Your task to perform on an android device: choose inbox layout in the gmail app Image 0: 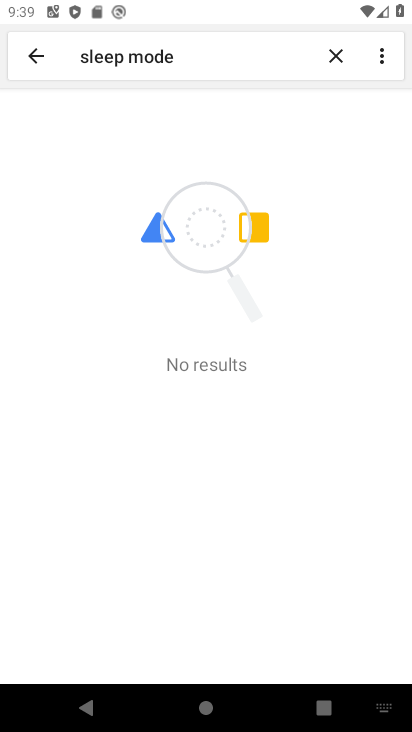
Step 0: press back button
Your task to perform on an android device: choose inbox layout in the gmail app Image 1: 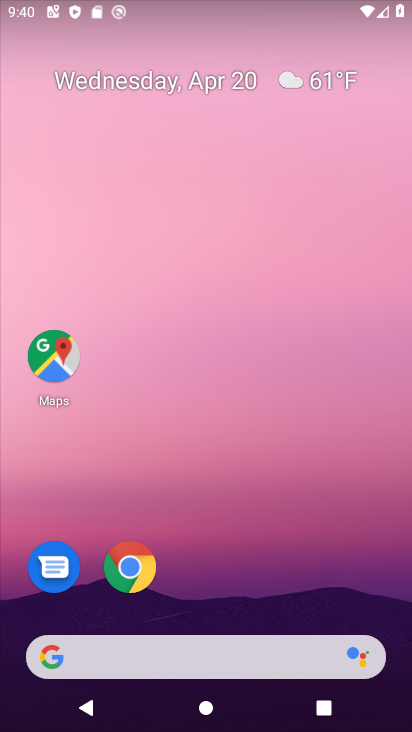
Step 1: drag from (139, 537) to (288, 50)
Your task to perform on an android device: choose inbox layout in the gmail app Image 2: 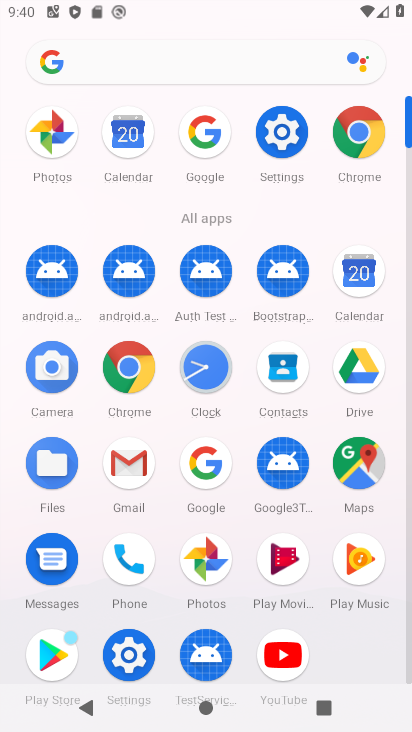
Step 2: click (134, 471)
Your task to perform on an android device: choose inbox layout in the gmail app Image 3: 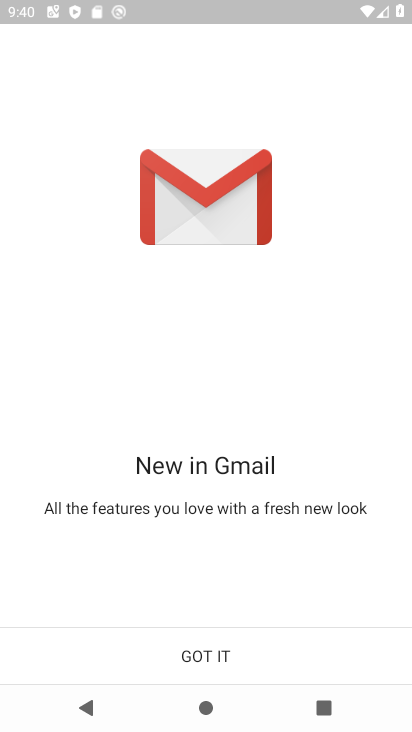
Step 3: click (221, 649)
Your task to perform on an android device: choose inbox layout in the gmail app Image 4: 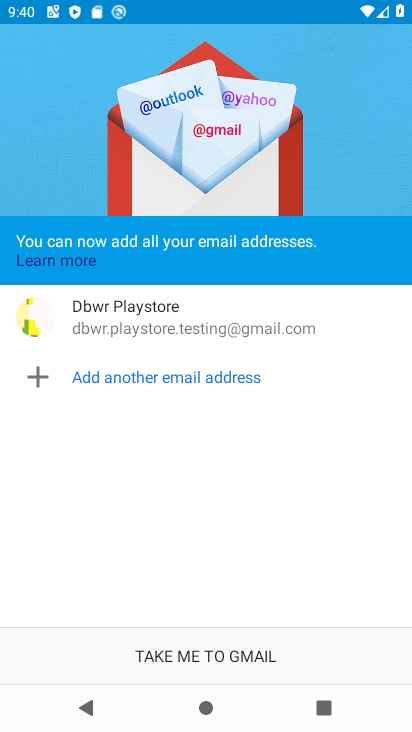
Step 4: click (242, 643)
Your task to perform on an android device: choose inbox layout in the gmail app Image 5: 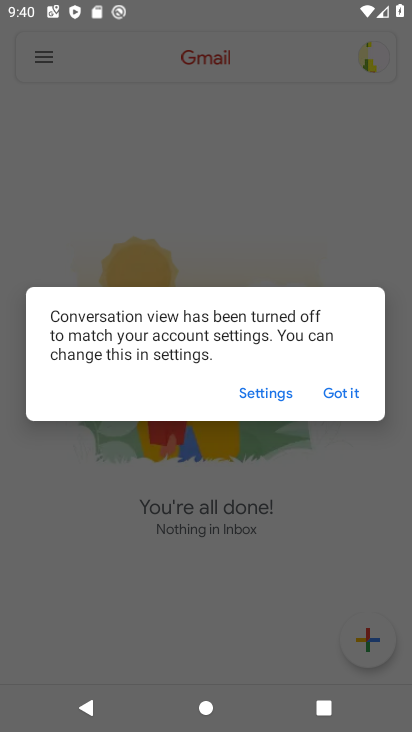
Step 5: click (351, 387)
Your task to perform on an android device: choose inbox layout in the gmail app Image 6: 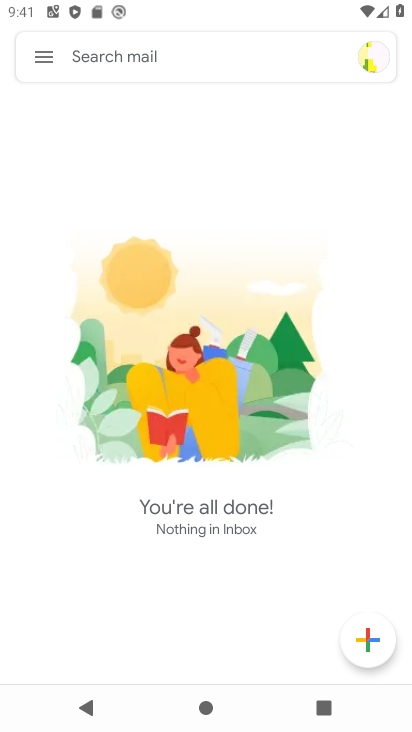
Step 6: click (50, 56)
Your task to perform on an android device: choose inbox layout in the gmail app Image 7: 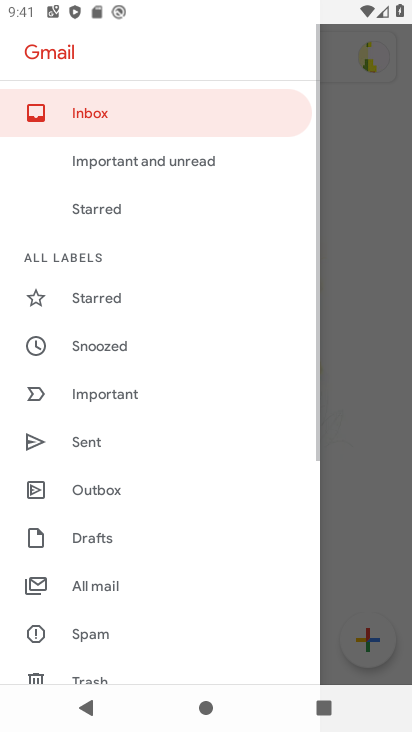
Step 7: drag from (113, 649) to (262, 9)
Your task to perform on an android device: choose inbox layout in the gmail app Image 8: 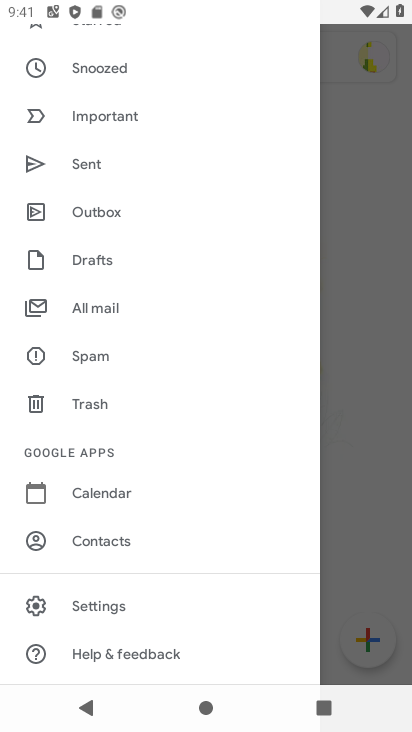
Step 8: click (94, 589)
Your task to perform on an android device: choose inbox layout in the gmail app Image 9: 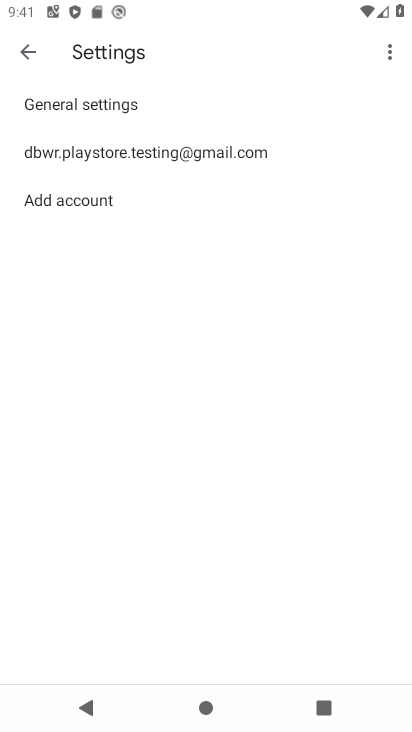
Step 9: click (118, 159)
Your task to perform on an android device: choose inbox layout in the gmail app Image 10: 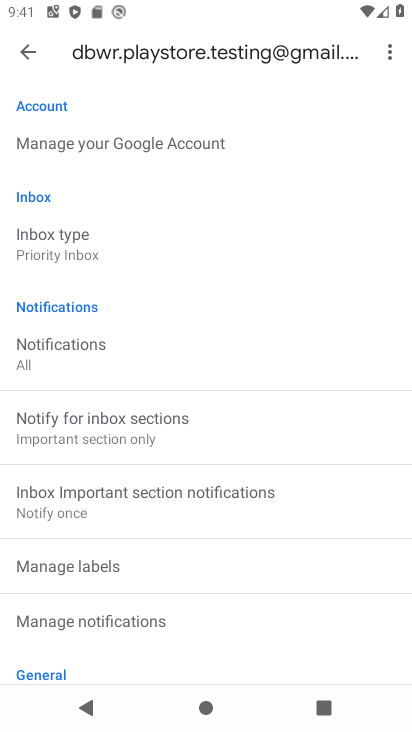
Step 10: click (124, 240)
Your task to perform on an android device: choose inbox layout in the gmail app Image 11: 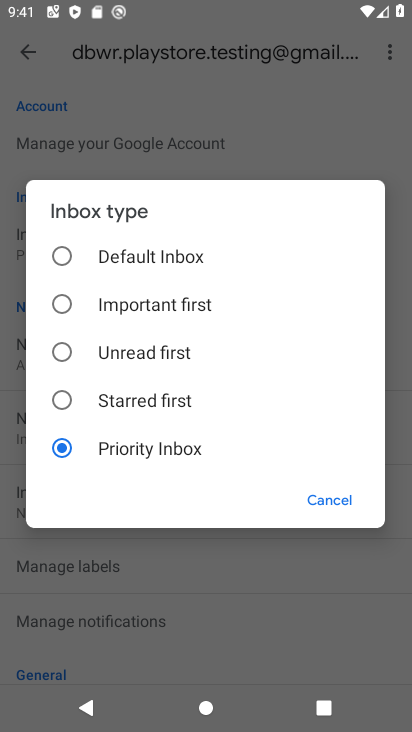
Step 11: click (56, 247)
Your task to perform on an android device: choose inbox layout in the gmail app Image 12: 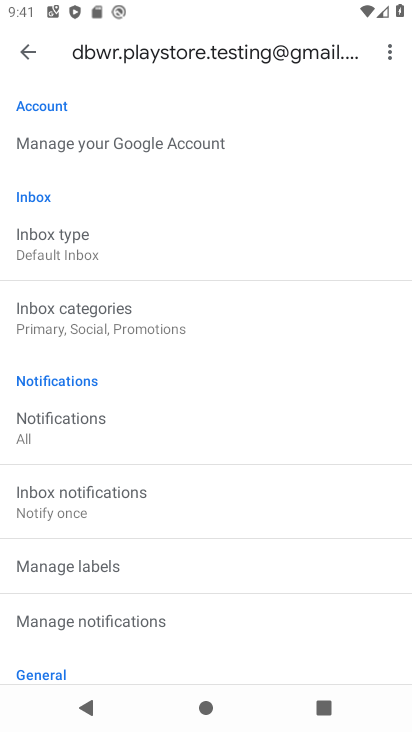
Step 12: task complete